Your task to perform on an android device: turn pop-ups on in chrome Image 0: 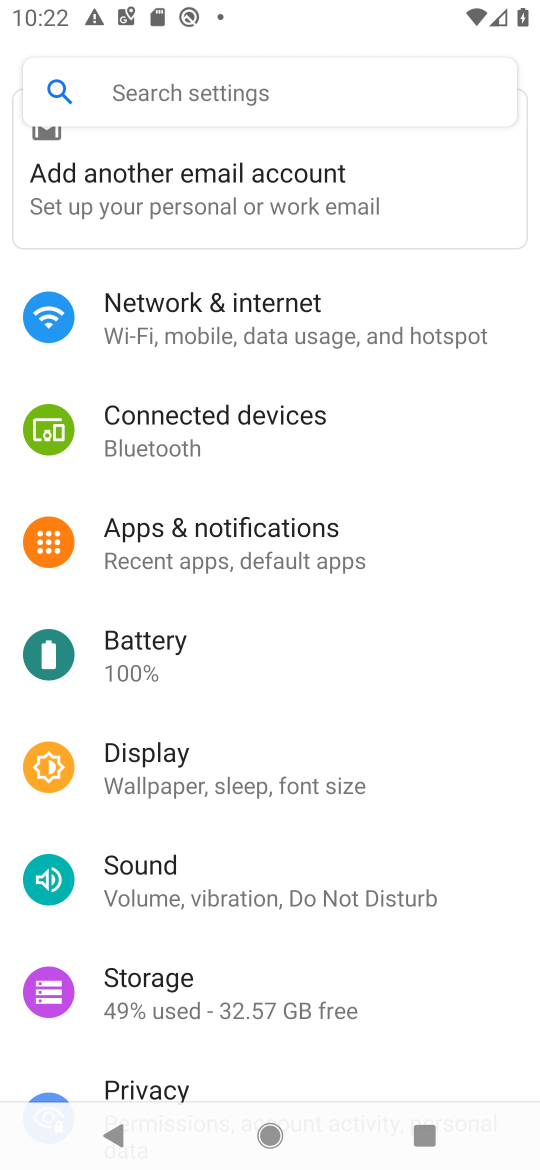
Step 0: press home button
Your task to perform on an android device: turn pop-ups on in chrome Image 1: 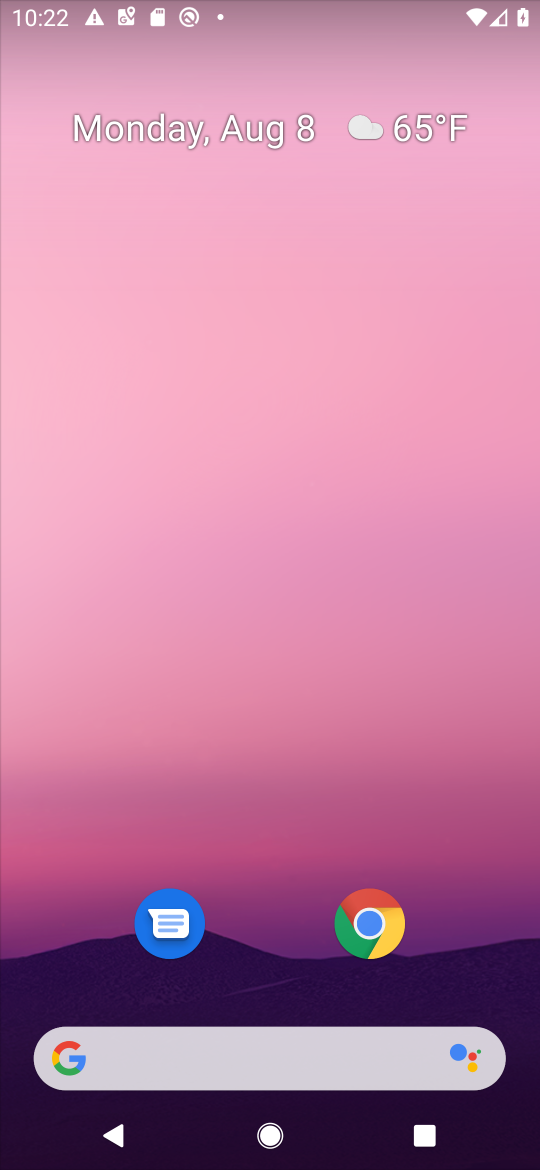
Step 1: click (381, 916)
Your task to perform on an android device: turn pop-ups on in chrome Image 2: 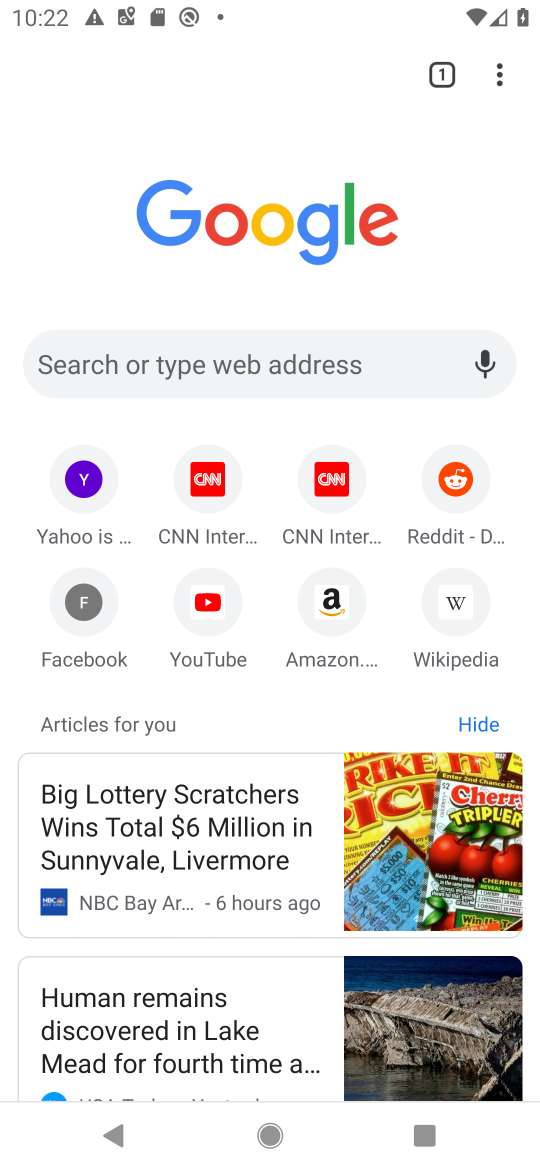
Step 2: click (491, 67)
Your task to perform on an android device: turn pop-ups on in chrome Image 3: 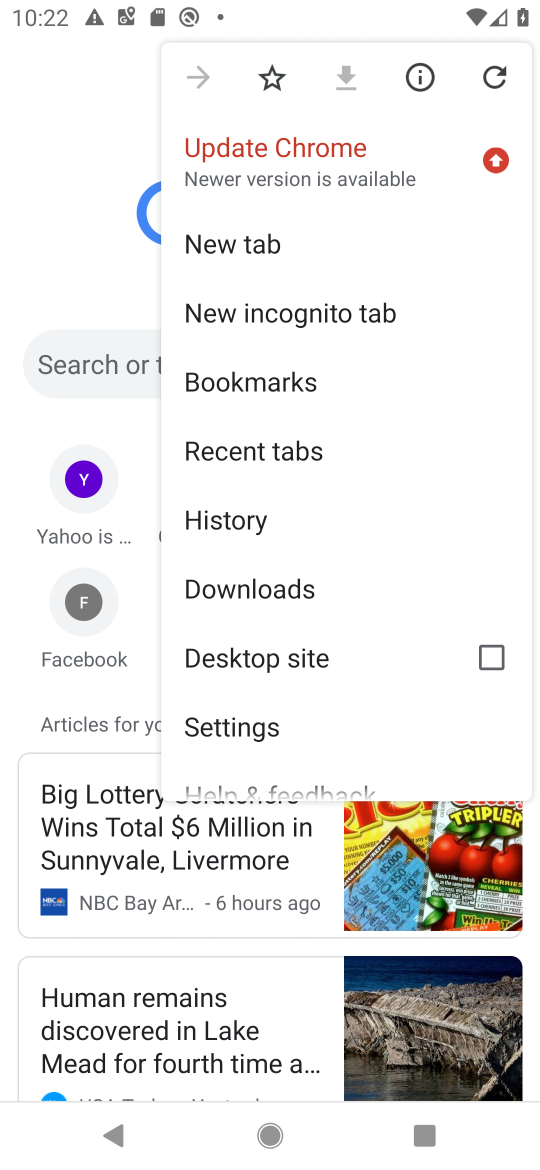
Step 3: click (247, 727)
Your task to perform on an android device: turn pop-ups on in chrome Image 4: 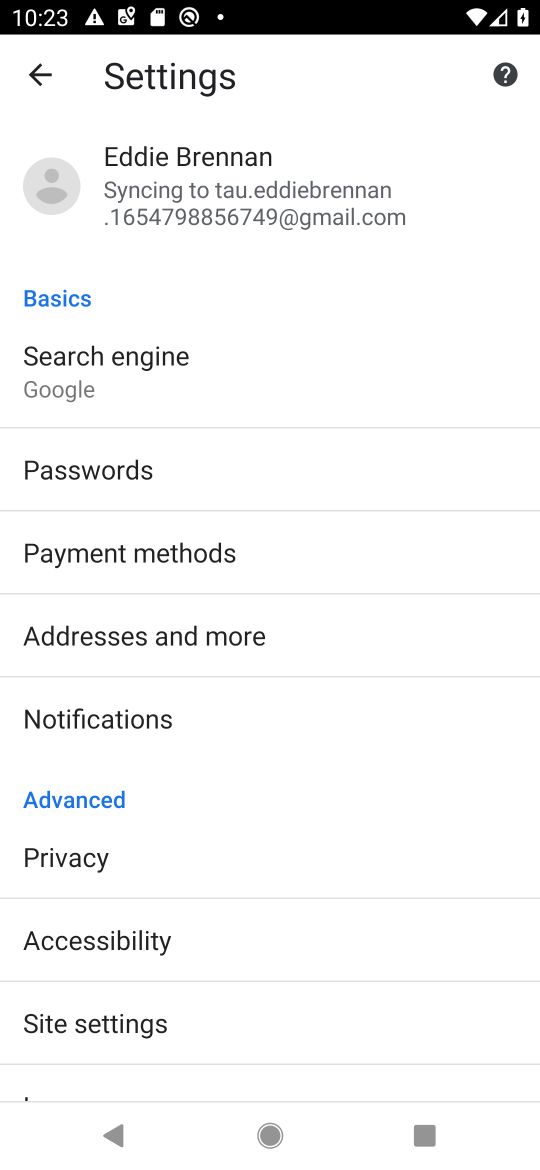
Step 4: click (146, 1028)
Your task to perform on an android device: turn pop-ups on in chrome Image 5: 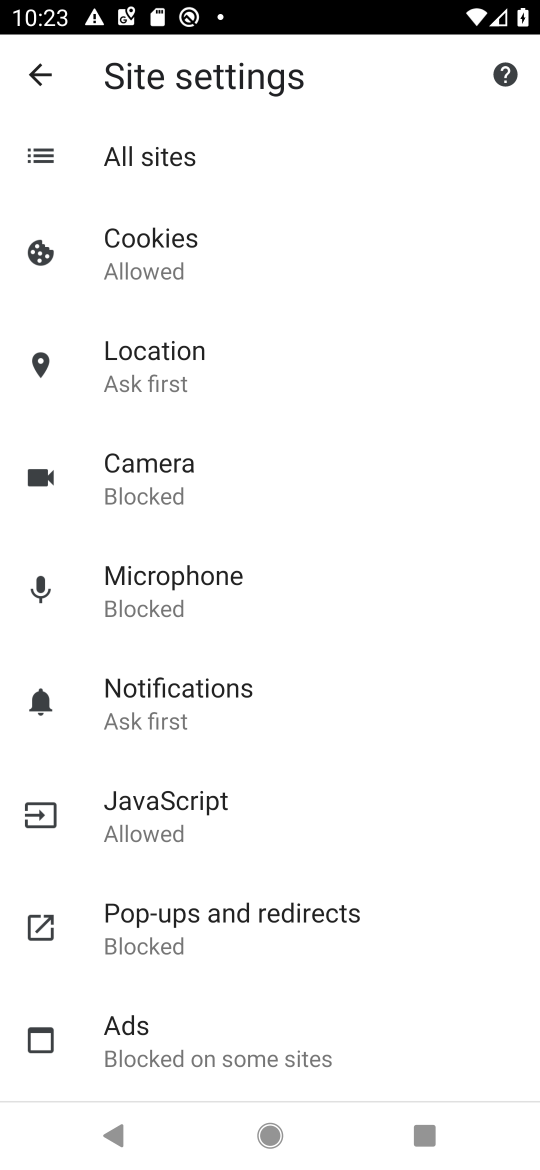
Step 5: click (225, 921)
Your task to perform on an android device: turn pop-ups on in chrome Image 6: 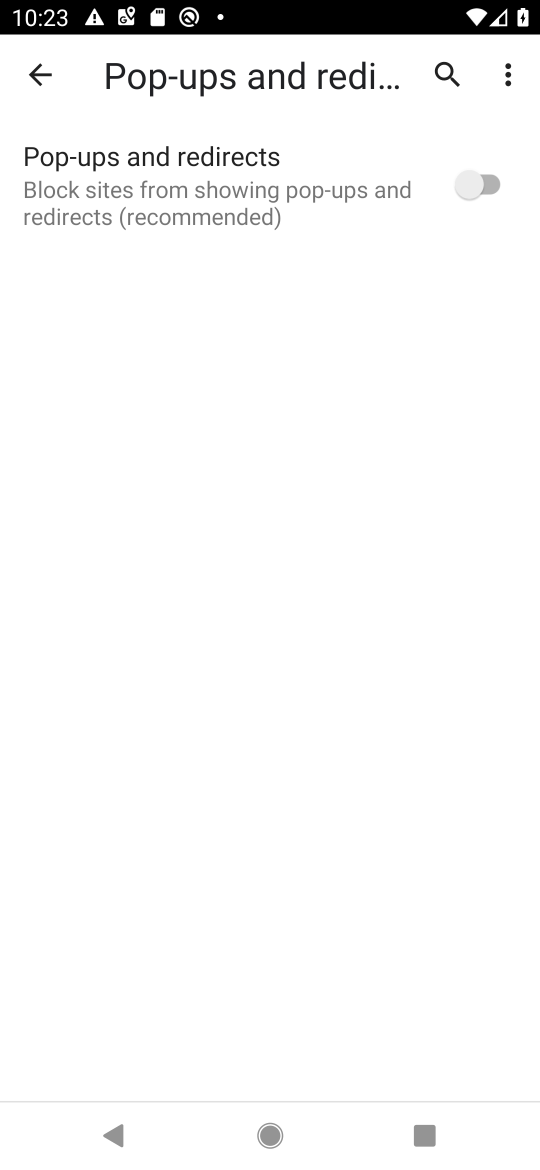
Step 6: click (486, 189)
Your task to perform on an android device: turn pop-ups on in chrome Image 7: 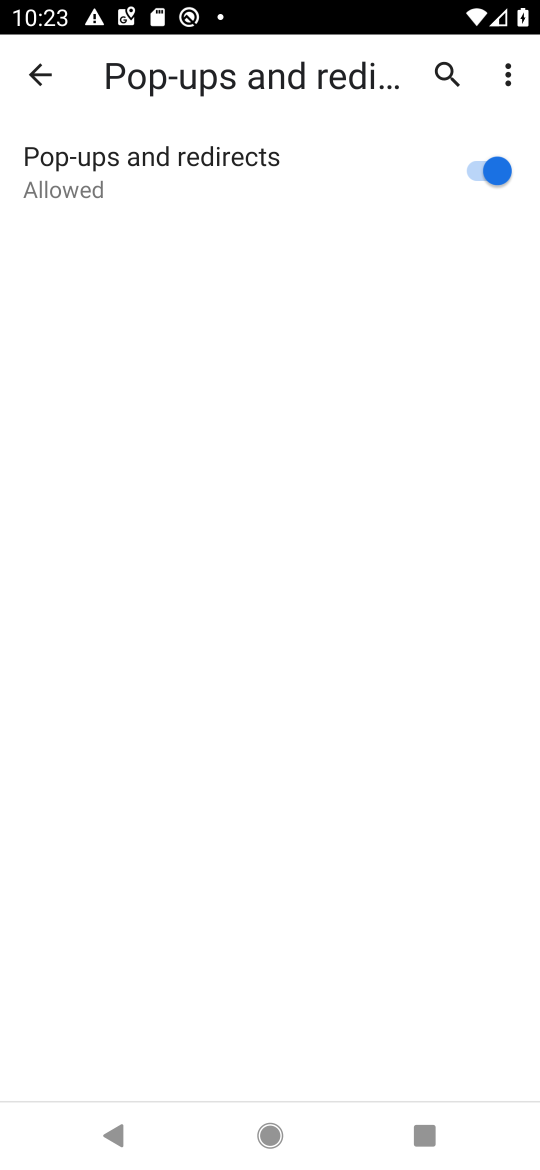
Step 7: task complete